Your task to perform on an android device: turn on wifi Image 0: 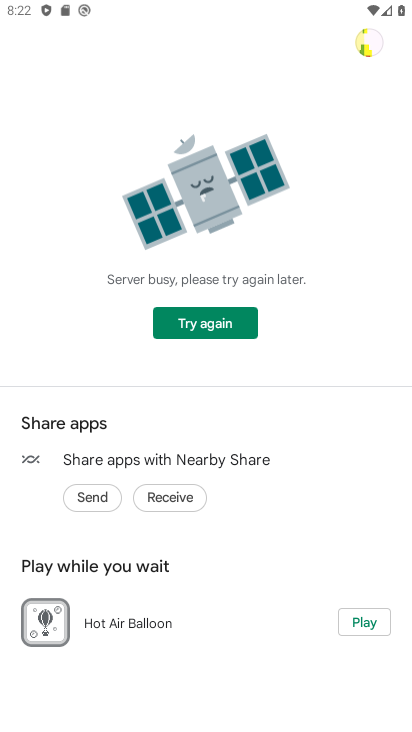
Step 0: press home button
Your task to perform on an android device: turn on wifi Image 1: 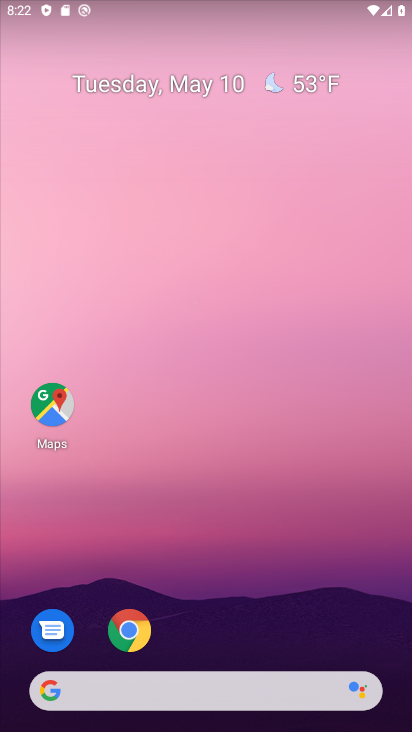
Step 1: drag from (205, 684) to (325, 98)
Your task to perform on an android device: turn on wifi Image 2: 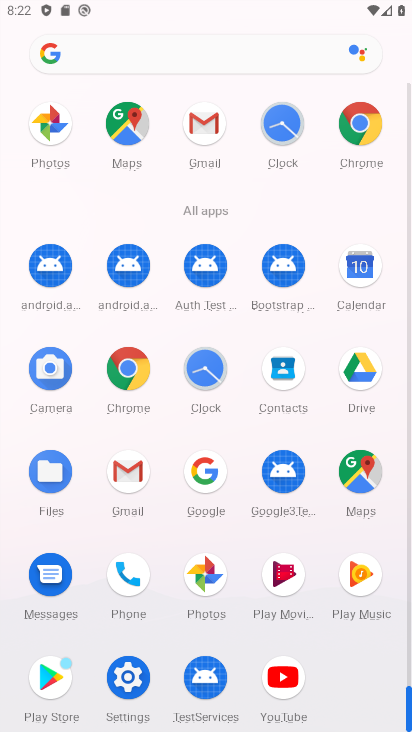
Step 2: click (142, 687)
Your task to perform on an android device: turn on wifi Image 3: 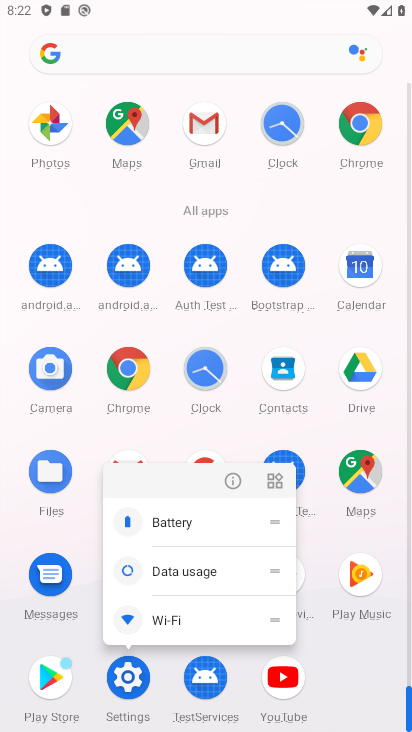
Step 3: click (136, 664)
Your task to perform on an android device: turn on wifi Image 4: 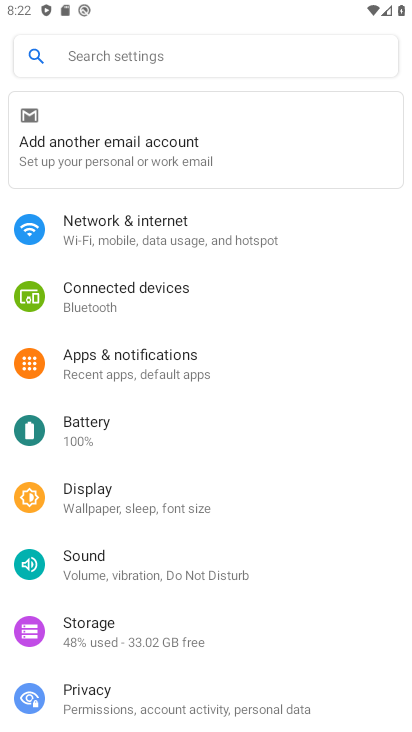
Step 4: click (189, 240)
Your task to perform on an android device: turn on wifi Image 5: 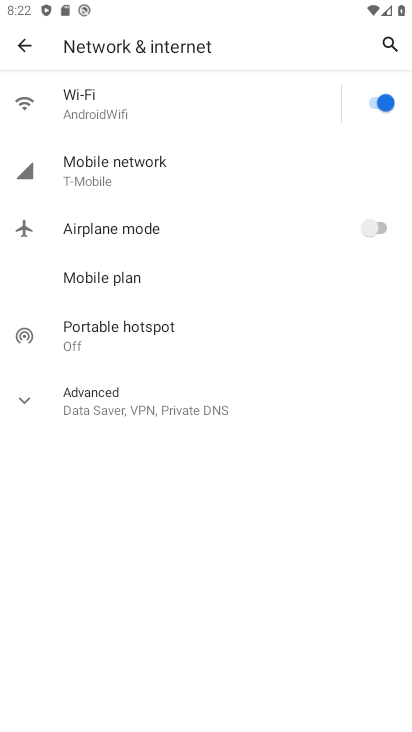
Step 5: task complete